Your task to perform on an android device: turn pop-ups off in chrome Image 0: 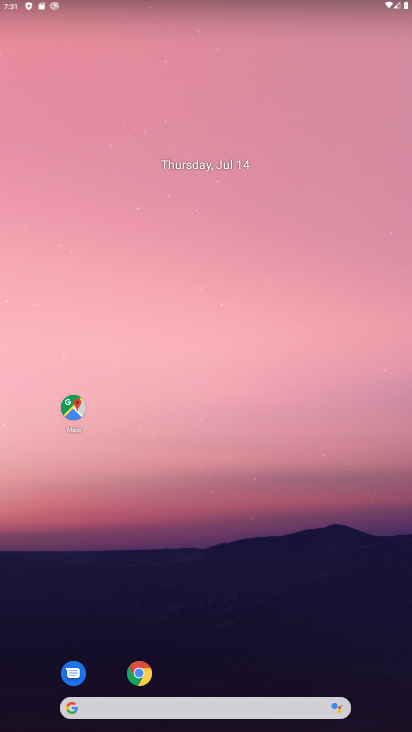
Step 0: click (137, 677)
Your task to perform on an android device: turn pop-ups off in chrome Image 1: 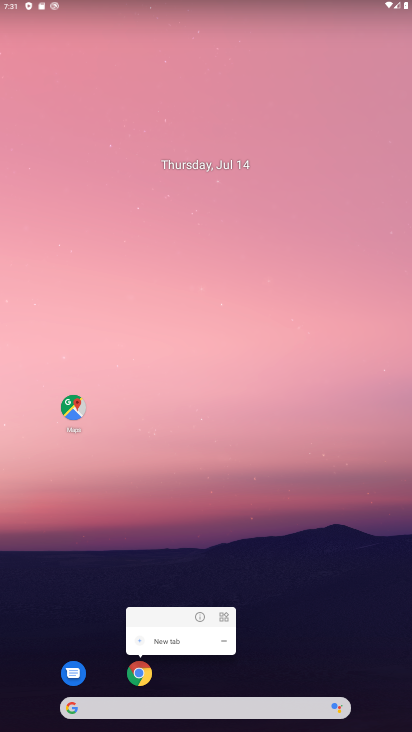
Step 1: click (138, 676)
Your task to perform on an android device: turn pop-ups off in chrome Image 2: 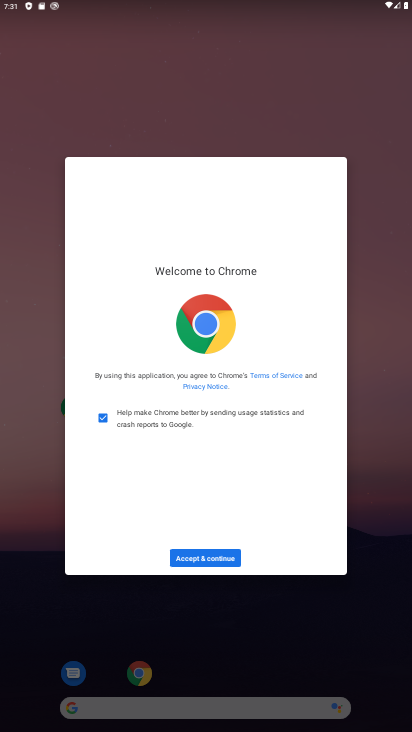
Step 2: click (204, 562)
Your task to perform on an android device: turn pop-ups off in chrome Image 3: 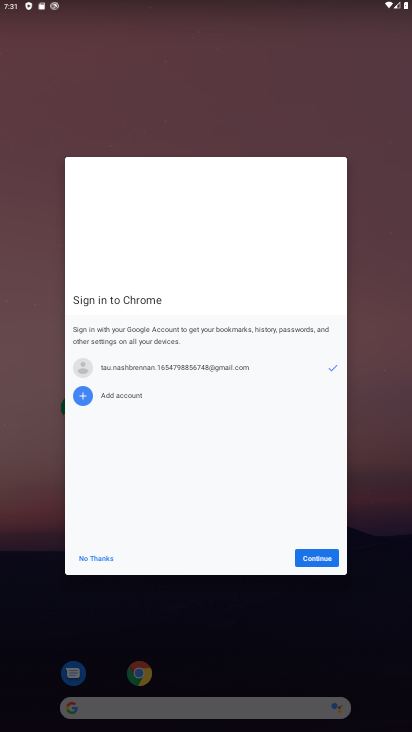
Step 3: click (324, 559)
Your task to perform on an android device: turn pop-ups off in chrome Image 4: 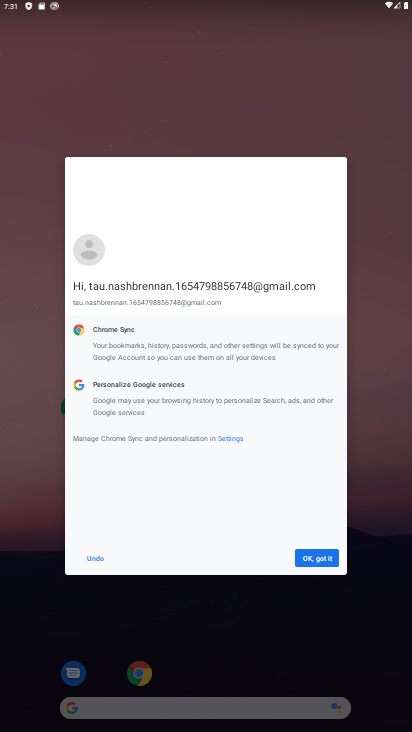
Step 4: click (324, 559)
Your task to perform on an android device: turn pop-ups off in chrome Image 5: 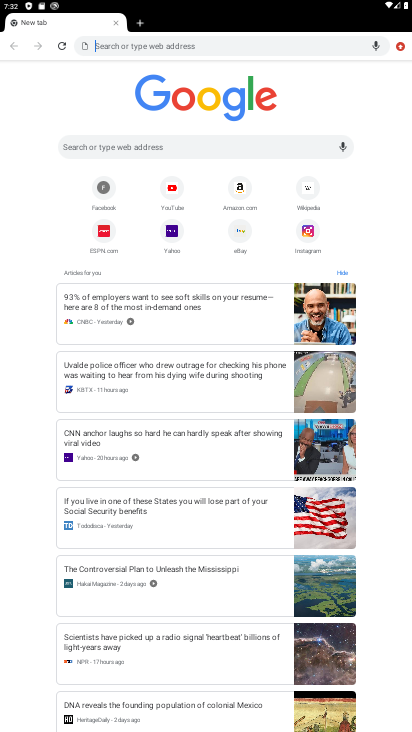
Step 5: click (397, 45)
Your task to perform on an android device: turn pop-ups off in chrome Image 6: 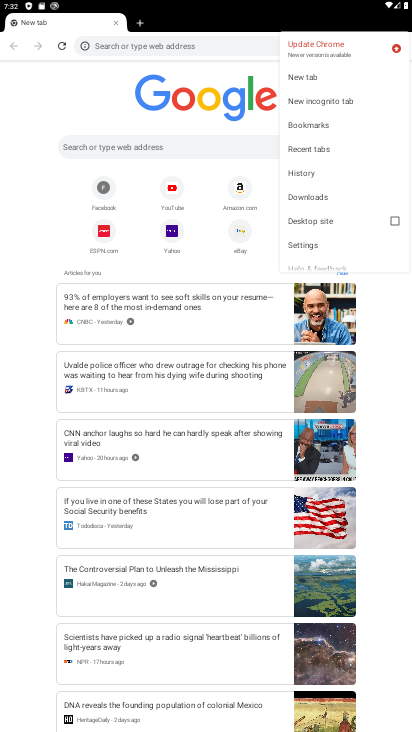
Step 6: click (314, 250)
Your task to perform on an android device: turn pop-ups off in chrome Image 7: 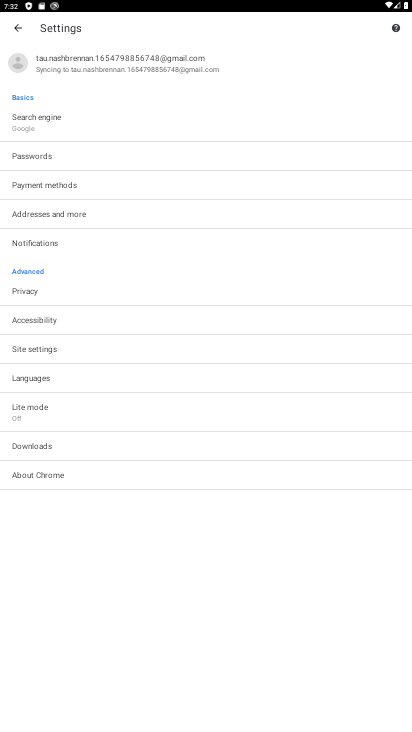
Step 7: click (38, 345)
Your task to perform on an android device: turn pop-ups off in chrome Image 8: 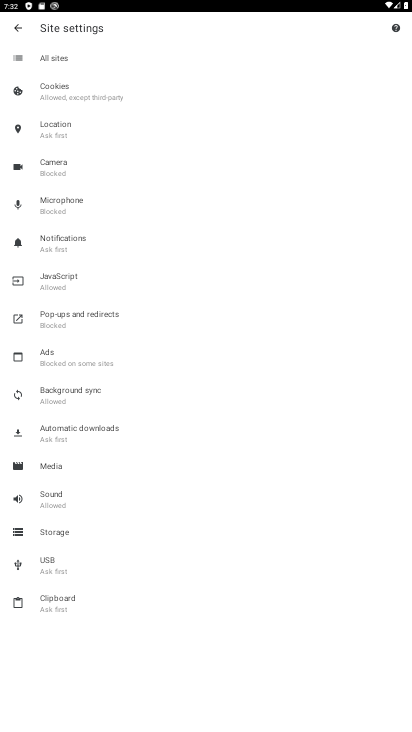
Step 8: click (54, 313)
Your task to perform on an android device: turn pop-ups off in chrome Image 9: 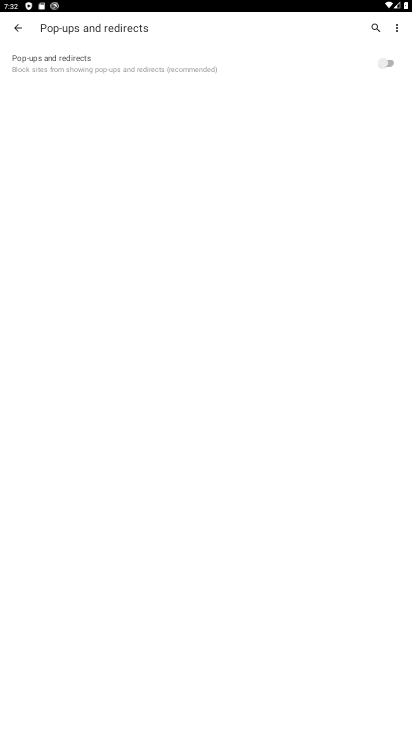
Step 9: task complete